Your task to perform on an android device: open app "McDonald's" (install if not already installed) Image 0: 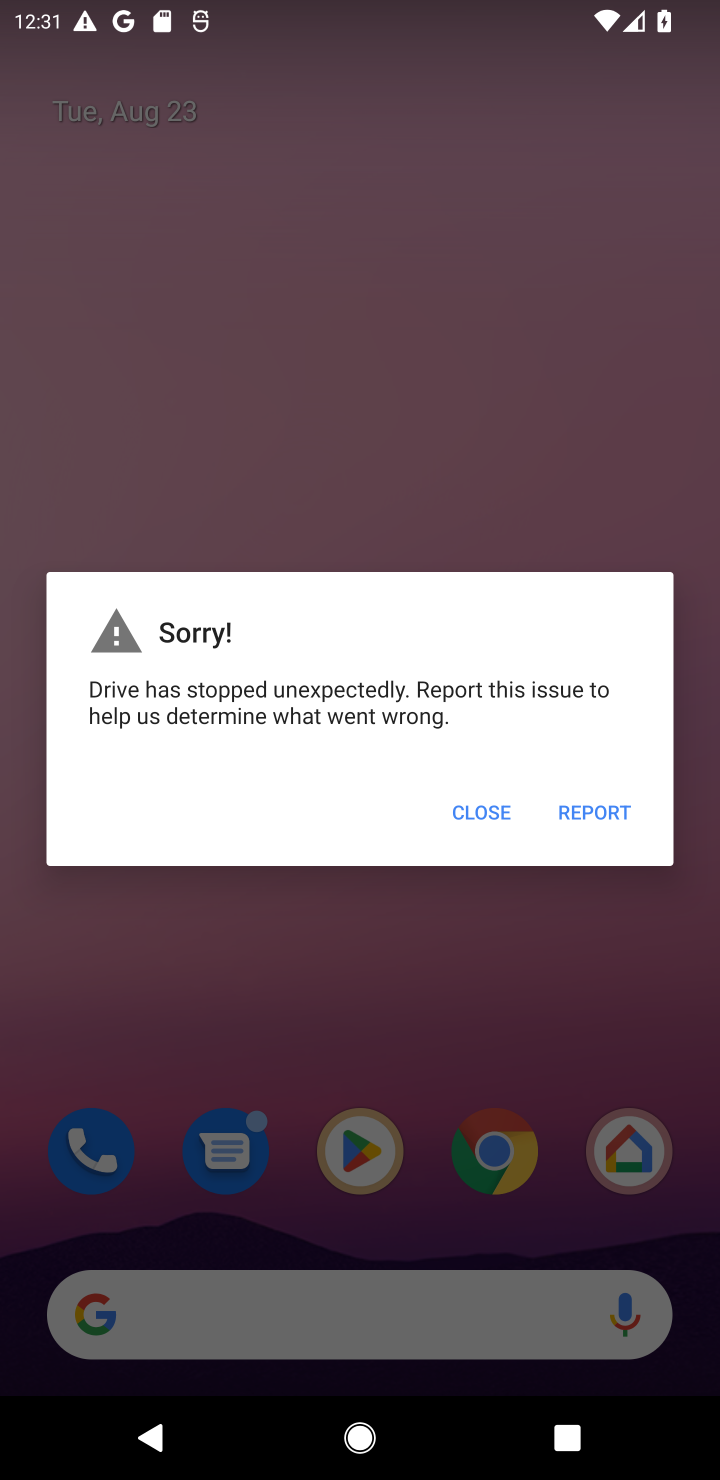
Step 0: press home button
Your task to perform on an android device: open app "McDonald's" (install if not already installed) Image 1: 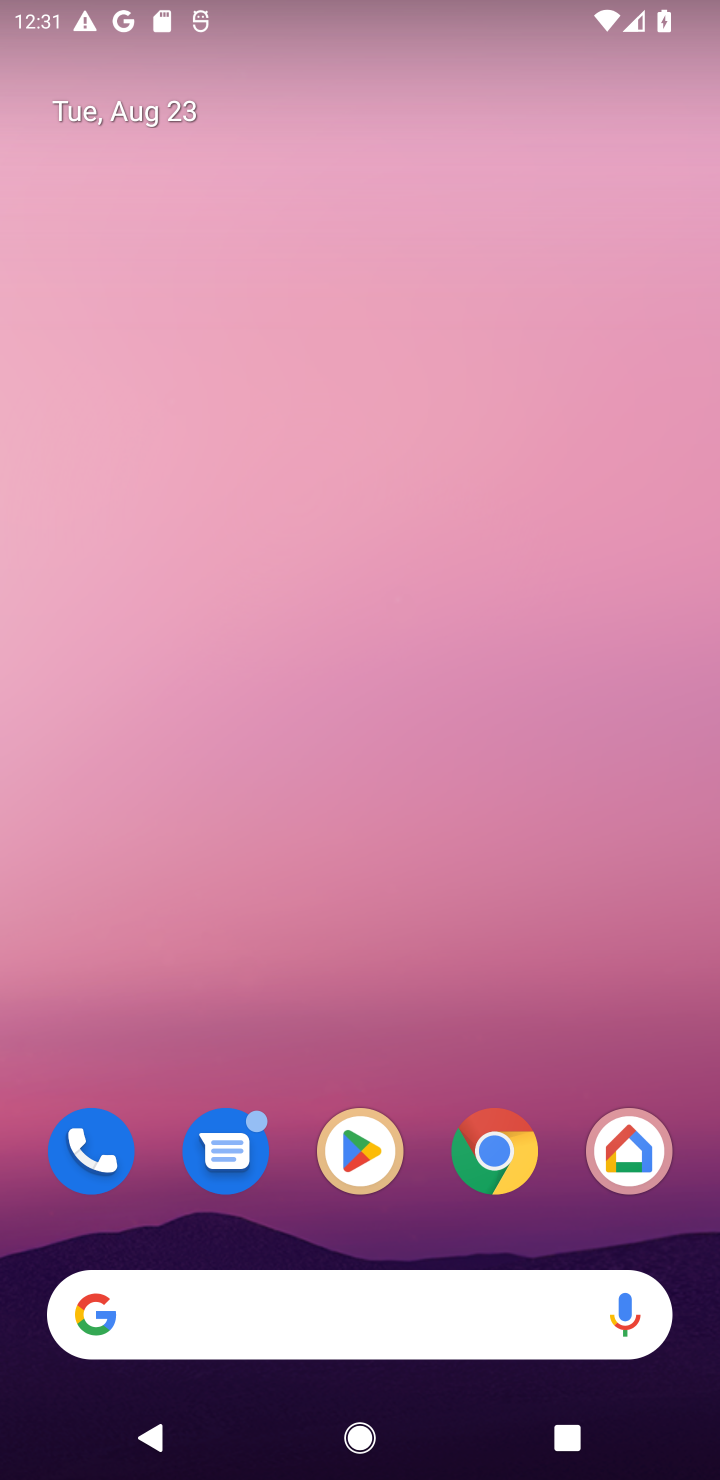
Step 1: click (369, 1133)
Your task to perform on an android device: open app "McDonald's" (install if not already installed) Image 2: 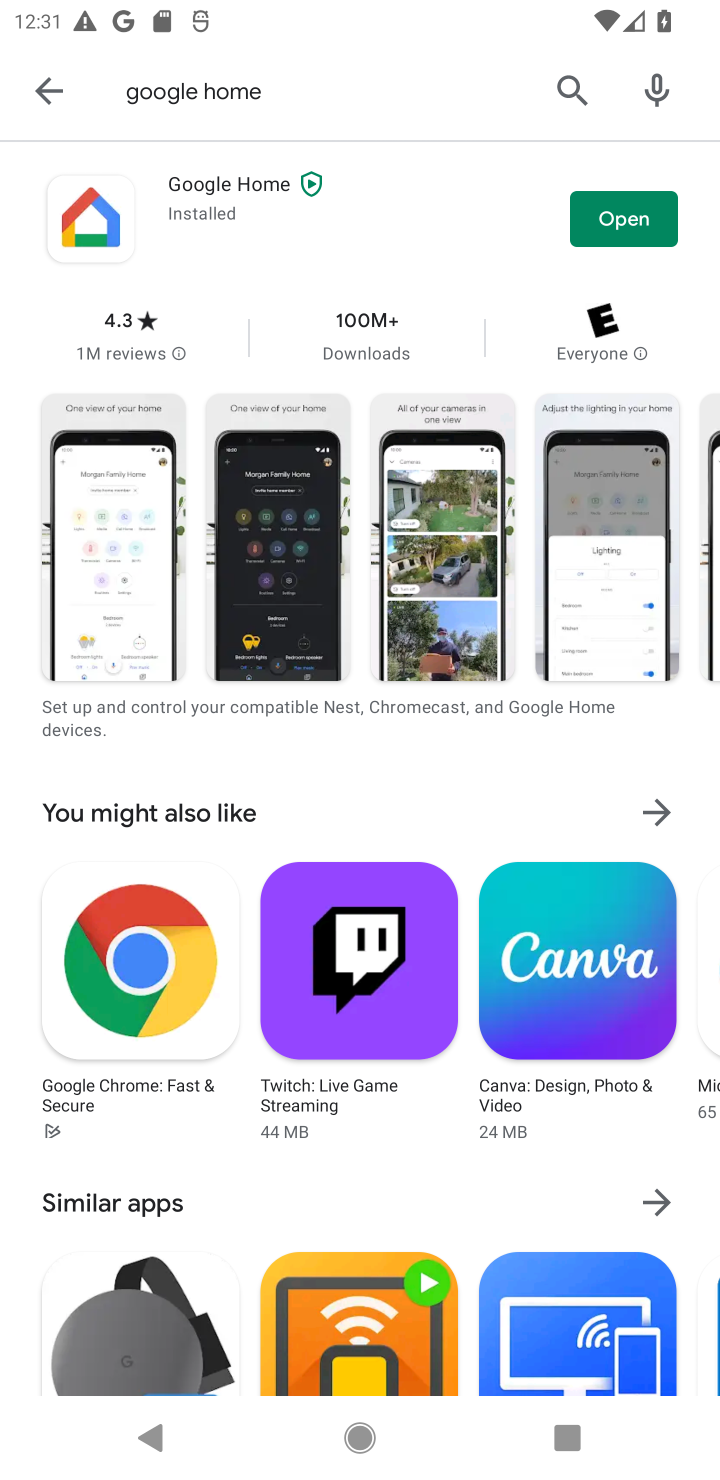
Step 2: click (570, 85)
Your task to perform on an android device: open app "McDonald's" (install if not already installed) Image 3: 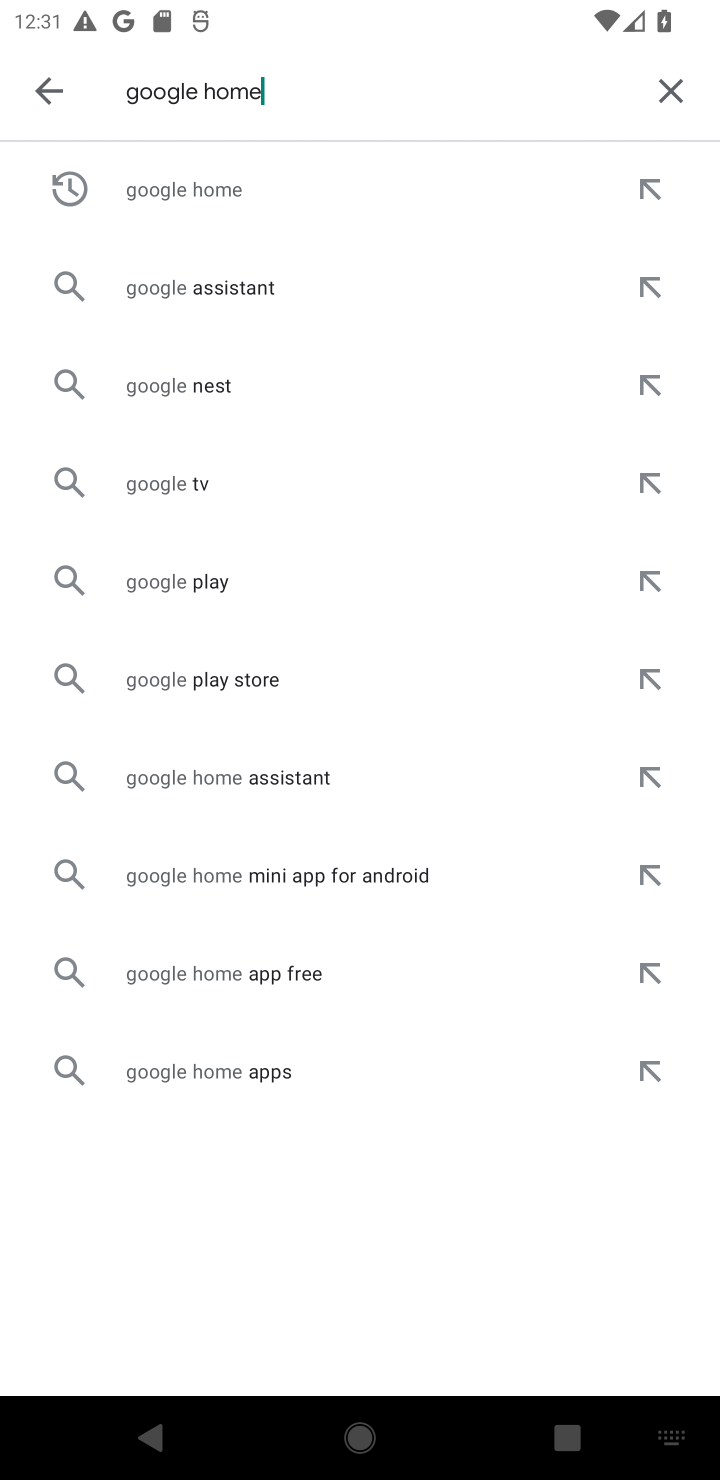
Step 3: click (659, 76)
Your task to perform on an android device: open app "McDonald's" (install if not already installed) Image 4: 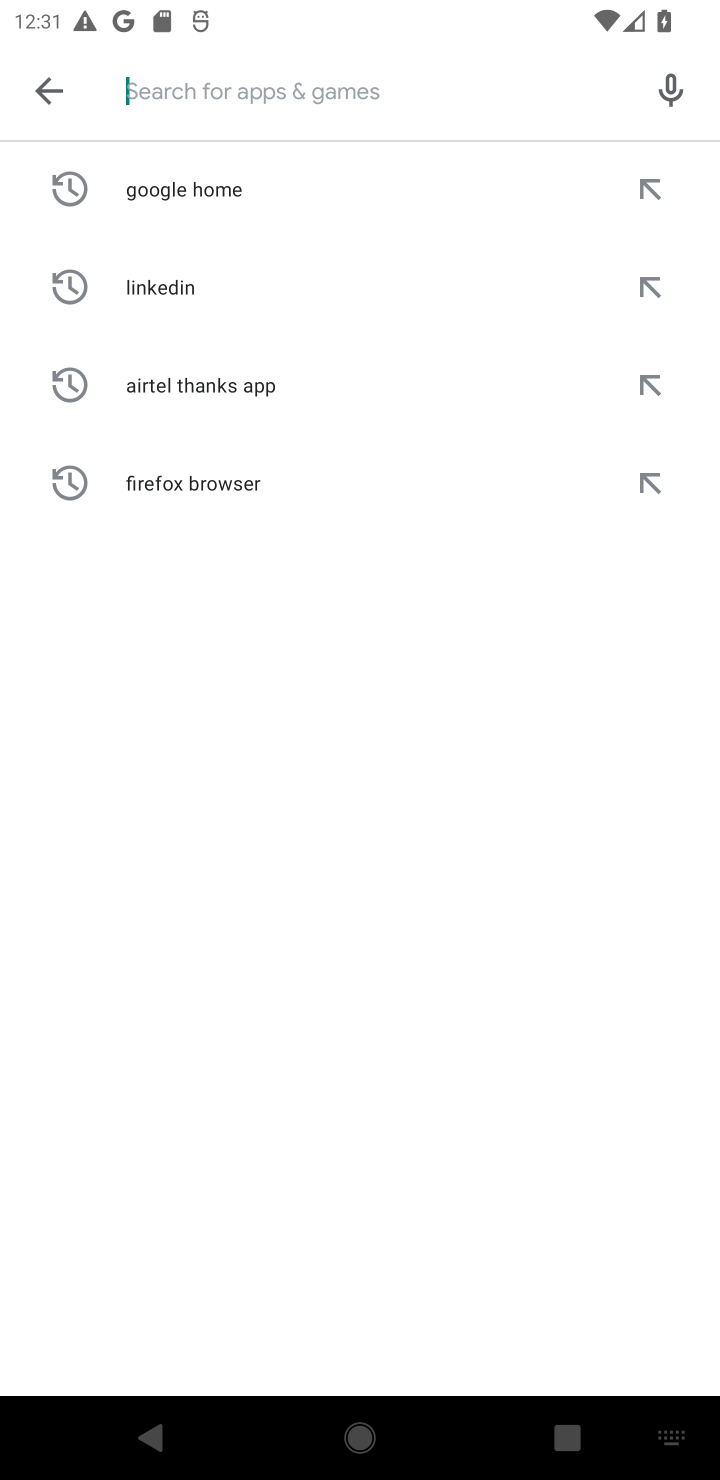
Step 4: type "McDonald's"
Your task to perform on an android device: open app "McDonald's" (install if not already installed) Image 5: 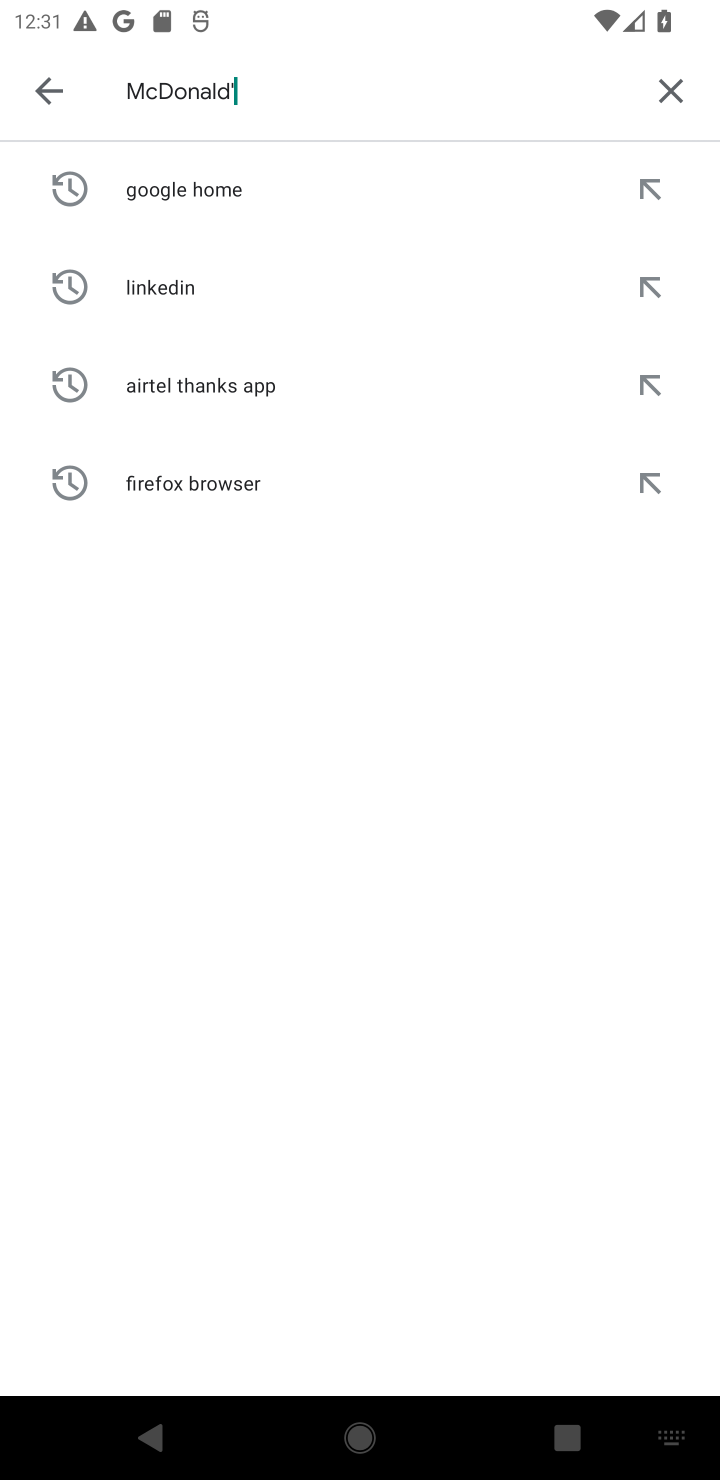
Step 5: type ""
Your task to perform on an android device: open app "McDonald's" (install if not already installed) Image 6: 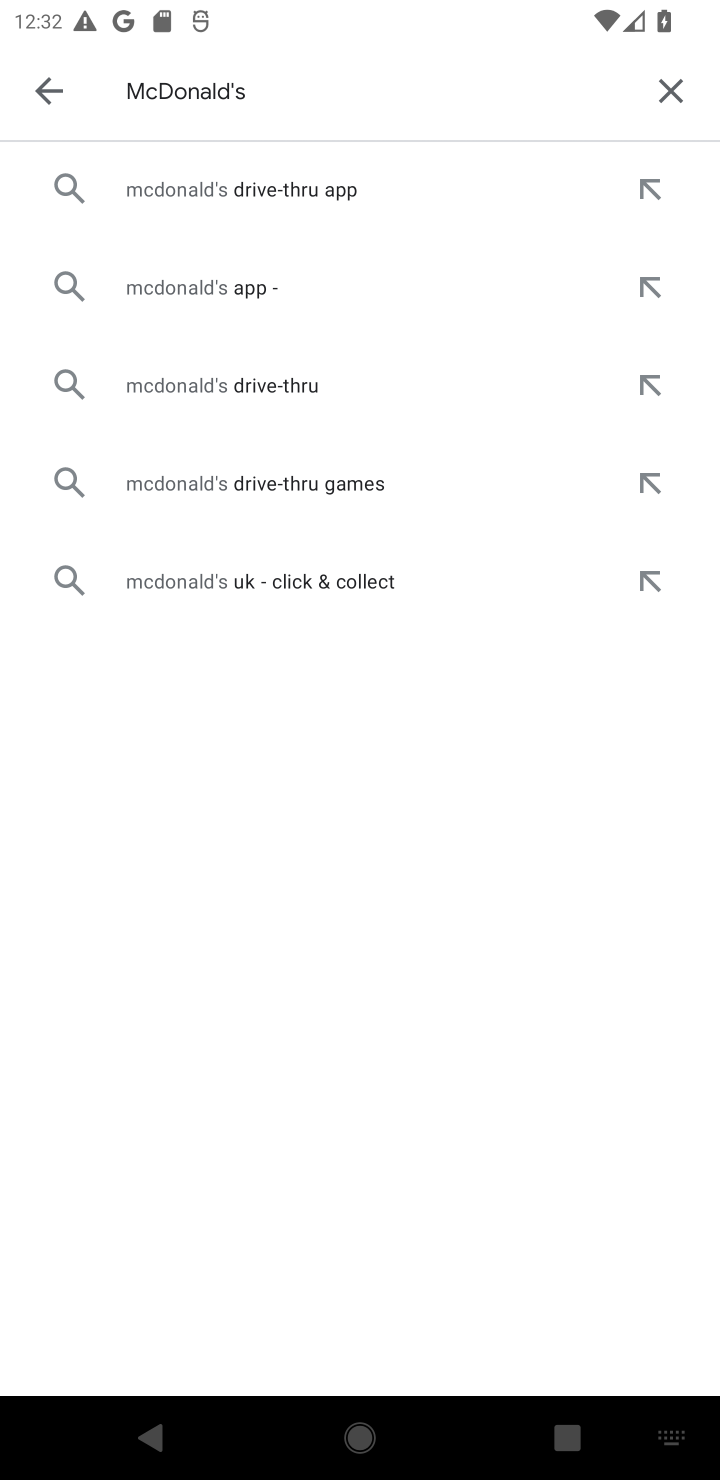
Step 6: click (244, 209)
Your task to perform on an android device: open app "McDonald's" (install if not already installed) Image 7: 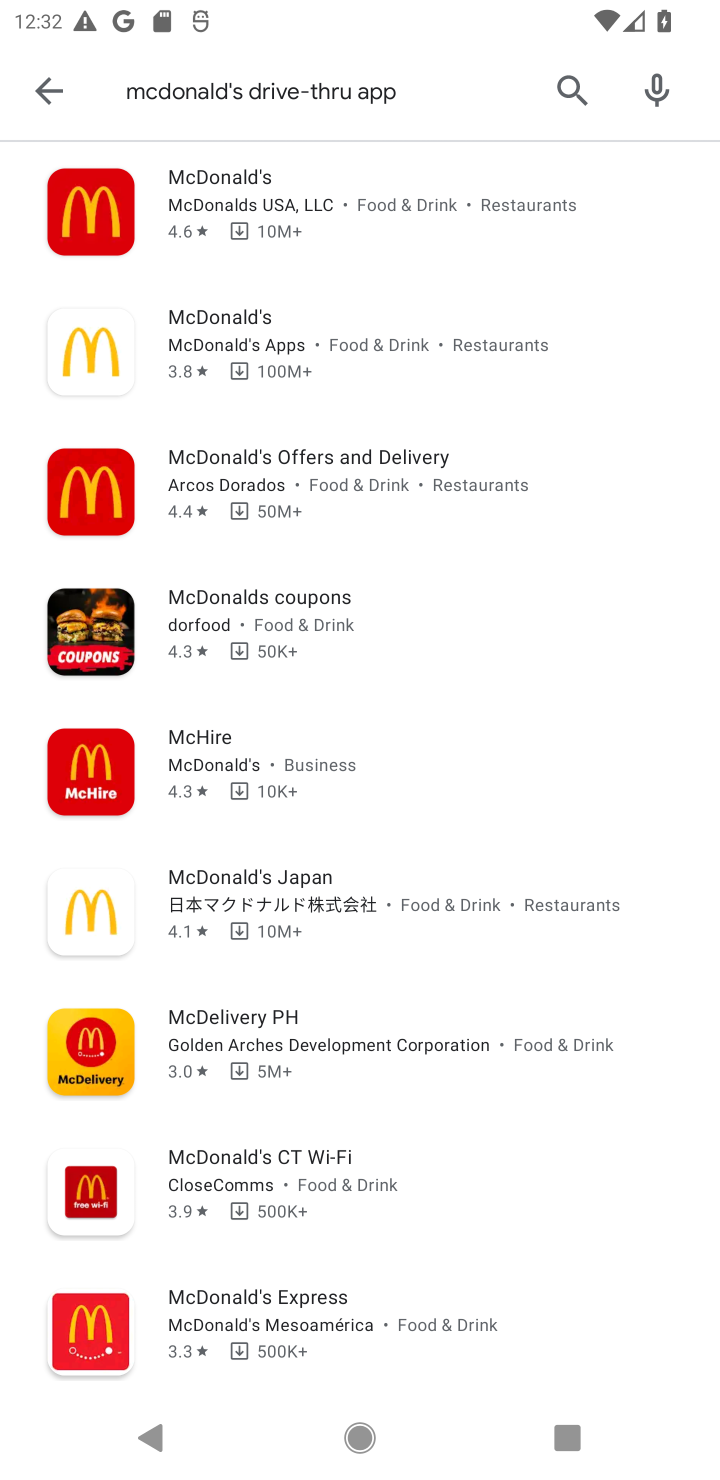
Step 7: click (430, 217)
Your task to perform on an android device: open app "McDonald's" (install if not already installed) Image 8: 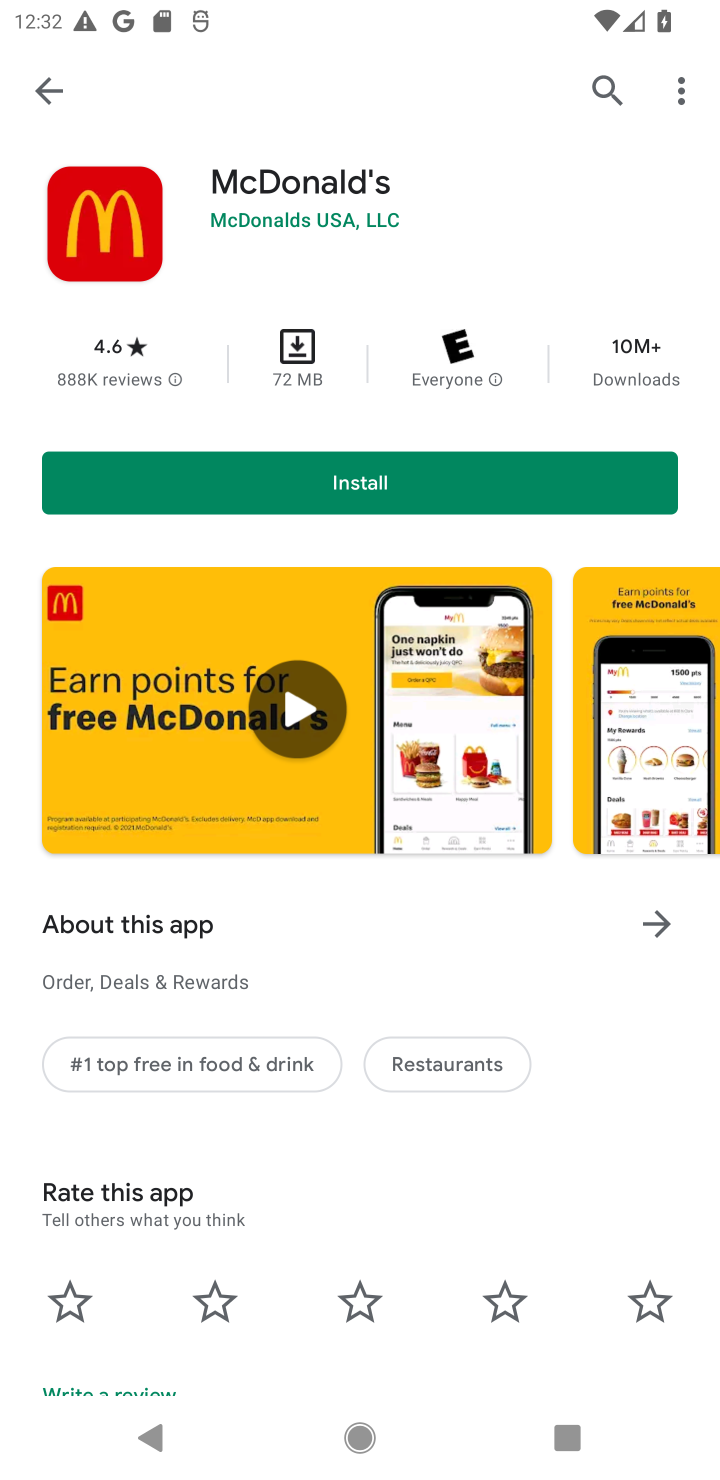
Step 8: click (406, 472)
Your task to perform on an android device: open app "McDonald's" (install if not already installed) Image 9: 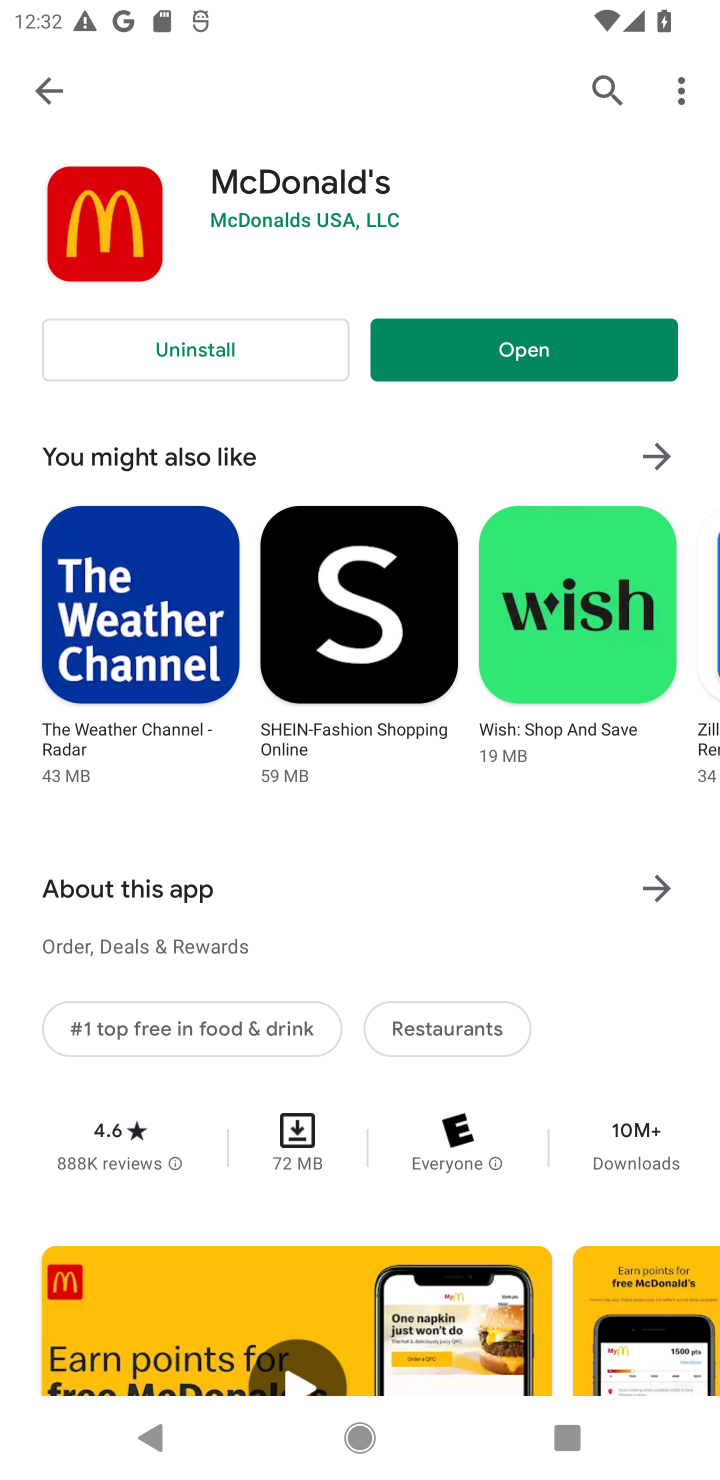
Step 9: click (605, 342)
Your task to perform on an android device: open app "McDonald's" (install if not already installed) Image 10: 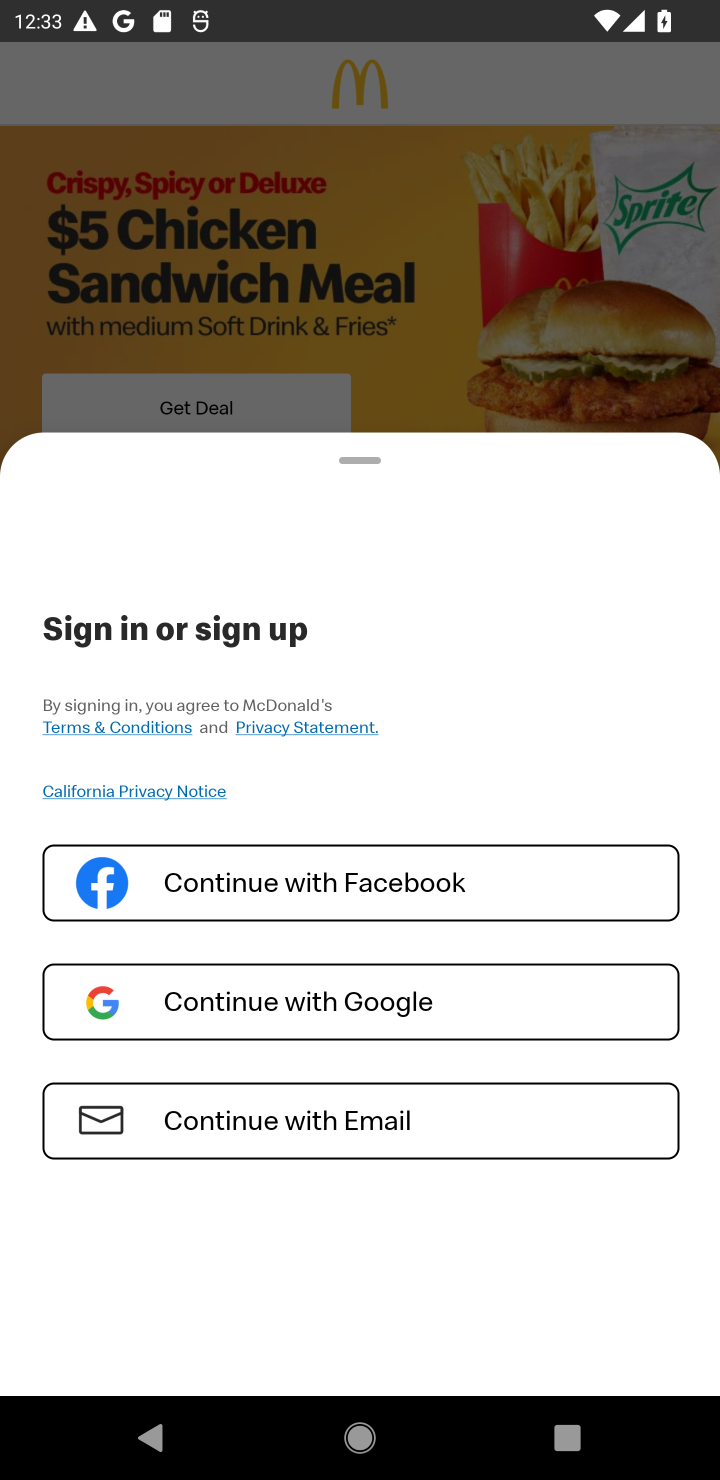
Step 10: task complete